Your task to perform on an android device: Search for Mexican restaurants on Maps Image 0: 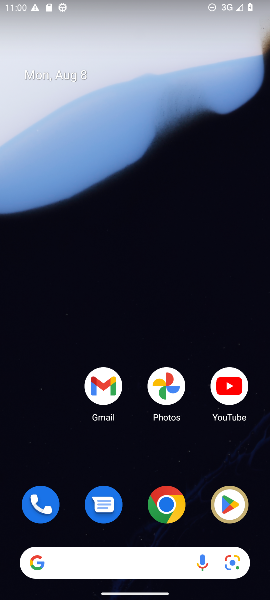
Step 0: drag from (124, 491) to (149, 160)
Your task to perform on an android device: Search for Mexican restaurants on Maps Image 1: 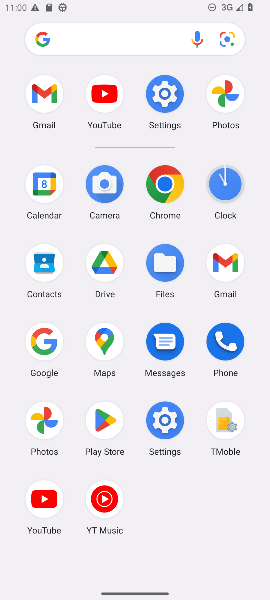
Step 1: click (100, 338)
Your task to perform on an android device: Search for Mexican restaurants on Maps Image 2: 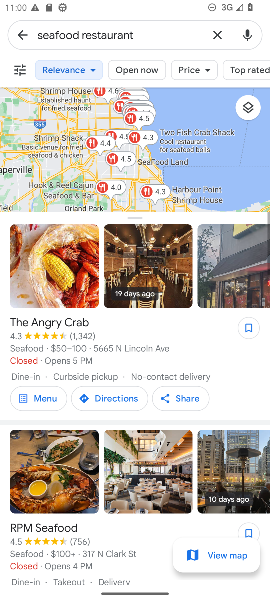
Step 2: click (58, 29)
Your task to perform on an android device: Search for Mexican restaurants on Maps Image 3: 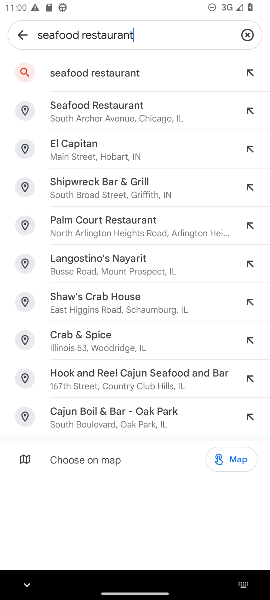
Step 3: click (62, 35)
Your task to perform on an android device: Search for Mexican restaurants on Maps Image 4: 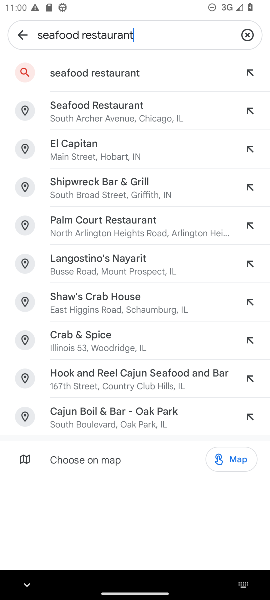
Step 4: click (61, 34)
Your task to perform on an android device: Search for Mexican restaurants on Maps Image 5: 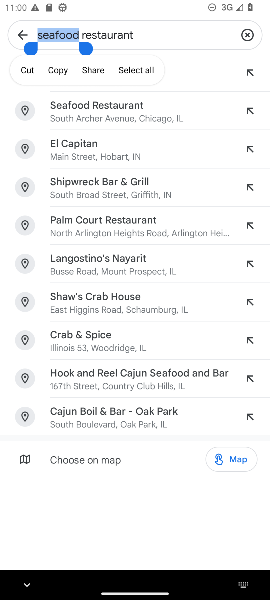
Step 5: type "Mexican"
Your task to perform on an android device: Search for Mexican restaurants on Maps Image 6: 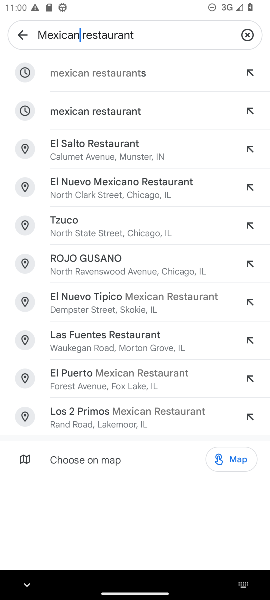
Step 6: click (84, 74)
Your task to perform on an android device: Search for Mexican restaurants on Maps Image 7: 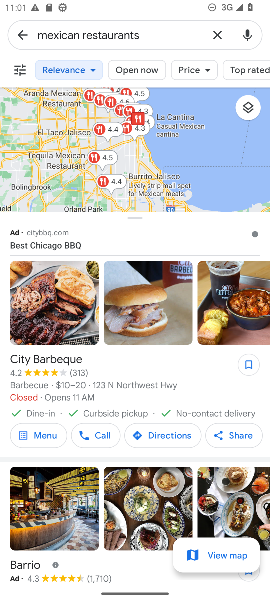
Step 7: task complete